Your task to perform on an android device: turn notification dots on Image 0: 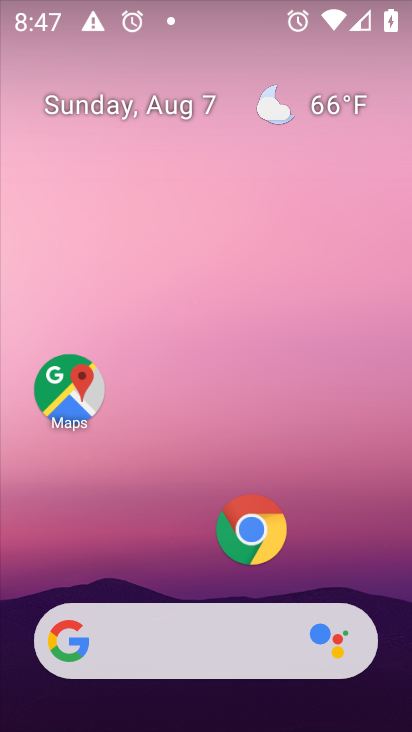
Step 0: drag from (150, 558) to (211, 56)
Your task to perform on an android device: turn notification dots on Image 1: 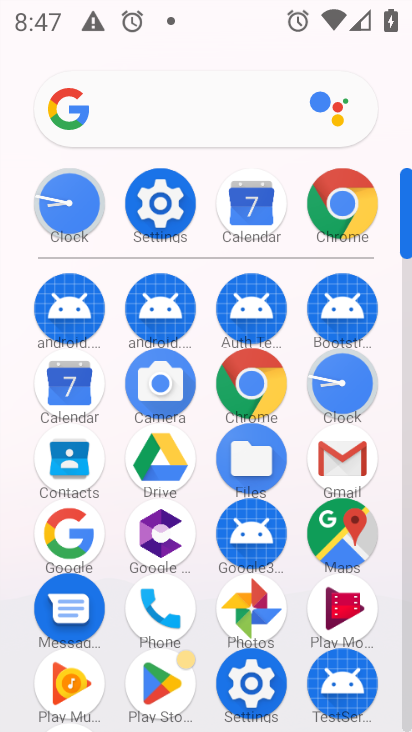
Step 1: click (166, 209)
Your task to perform on an android device: turn notification dots on Image 2: 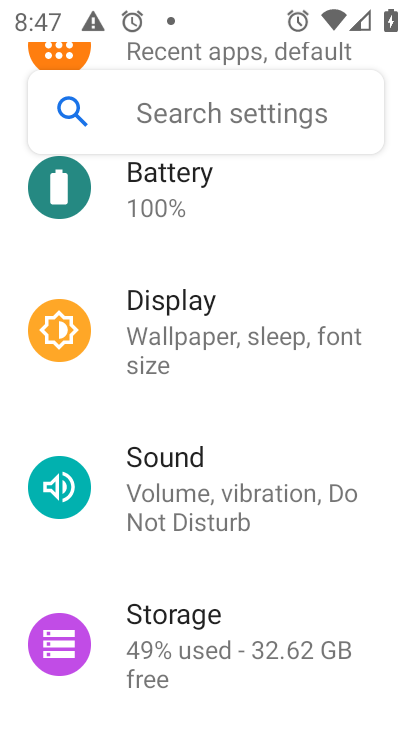
Step 2: drag from (226, 291) to (193, 584)
Your task to perform on an android device: turn notification dots on Image 3: 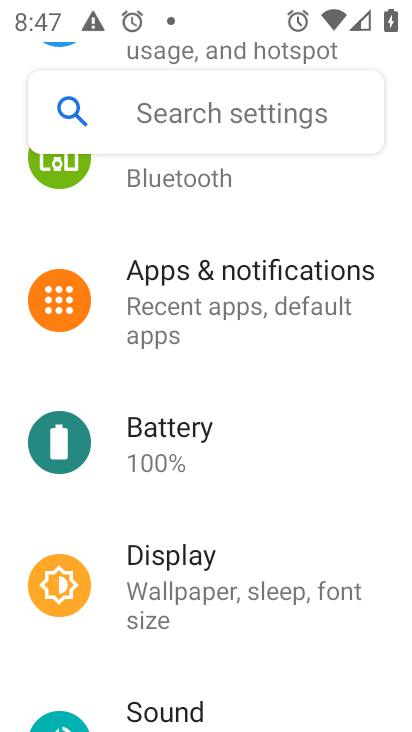
Step 3: click (225, 305)
Your task to perform on an android device: turn notification dots on Image 4: 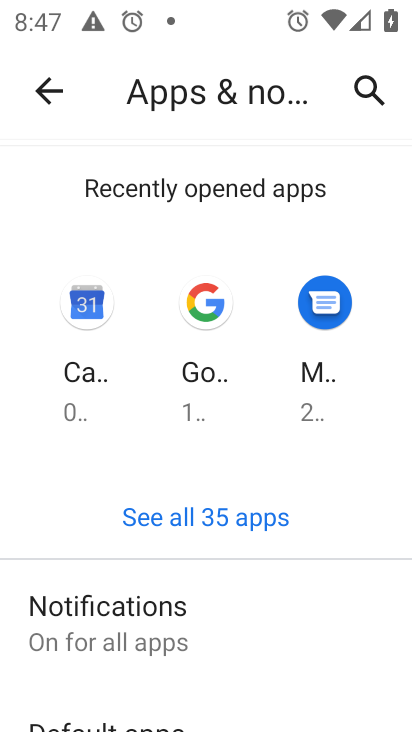
Step 4: drag from (181, 606) to (205, 476)
Your task to perform on an android device: turn notification dots on Image 5: 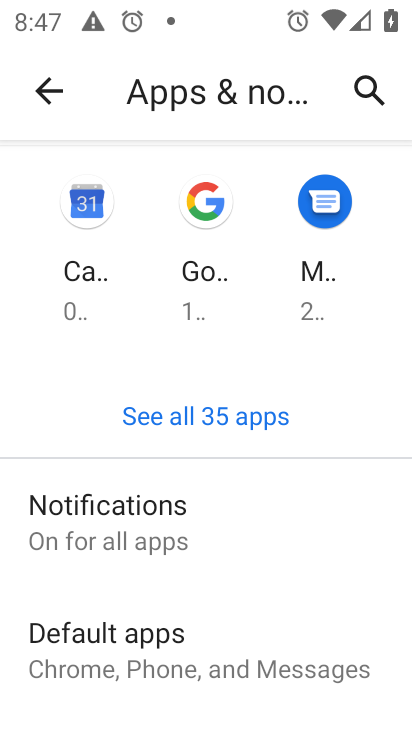
Step 5: click (143, 518)
Your task to perform on an android device: turn notification dots on Image 6: 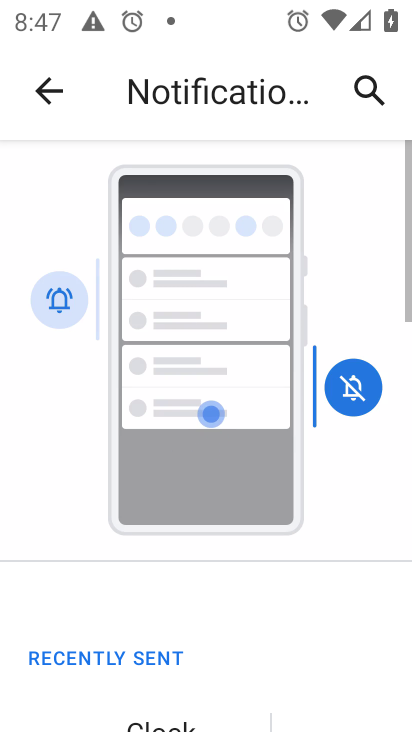
Step 6: drag from (180, 608) to (245, 214)
Your task to perform on an android device: turn notification dots on Image 7: 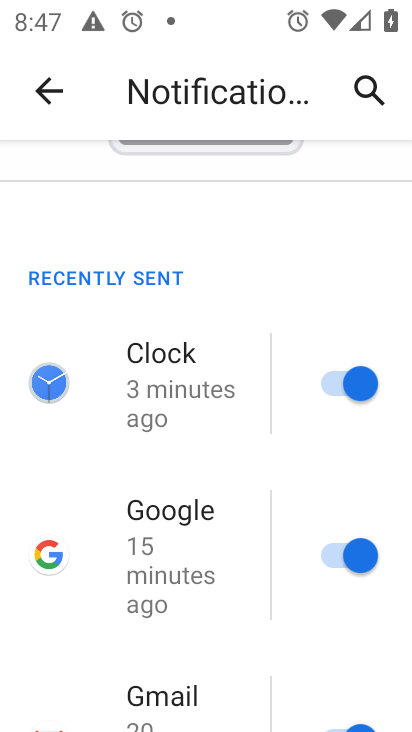
Step 7: drag from (213, 644) to (273, 75)
Your task to perform on an android device: turn notification dots on Image 8: 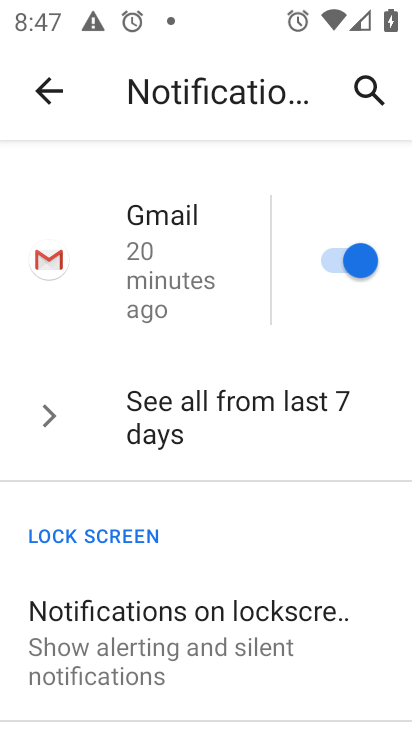
Step 8: drag from (183, 620) to (228, 279)
Your task to perform on an android device: turn notification dots on Image 9: 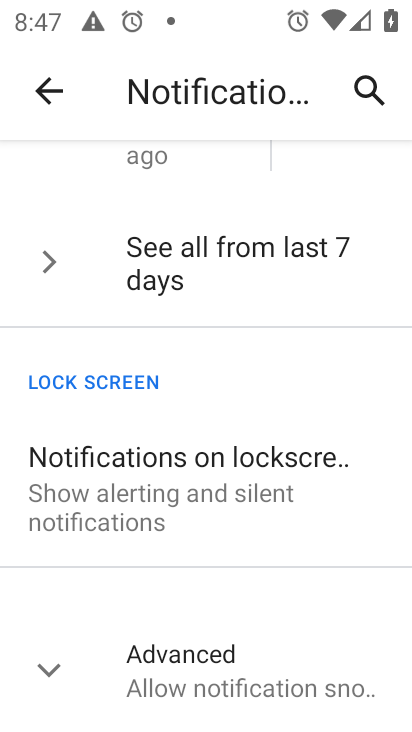
Step 9: click (164, 685)
Your task to perform on an android device: turn notification dots on Image 10: 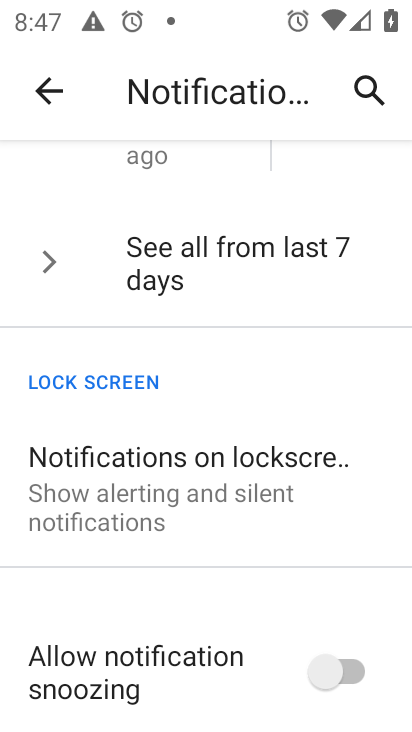
Step 10: task complete